Your task to perform on an android device: open app "Cash App" (install if not already installed) Image 0: 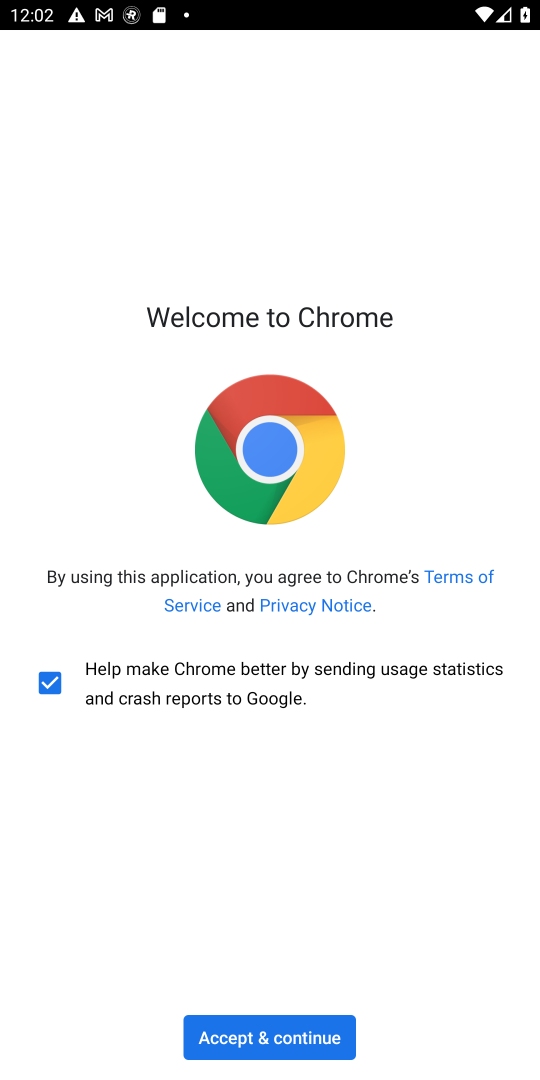
Step 0: press home button
Your task to perform on an android device: open app "Cash App" (install if not already installed) Image 1: 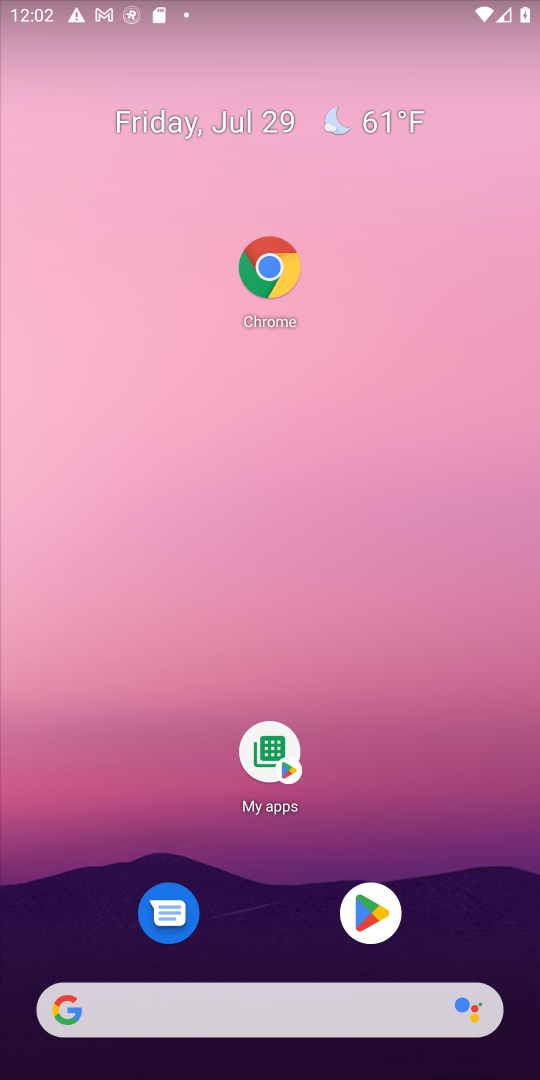
Step 1: click (388, 904)
Your task to perform on an android device: open app "Cash App" (install if not already installed) Image 2: 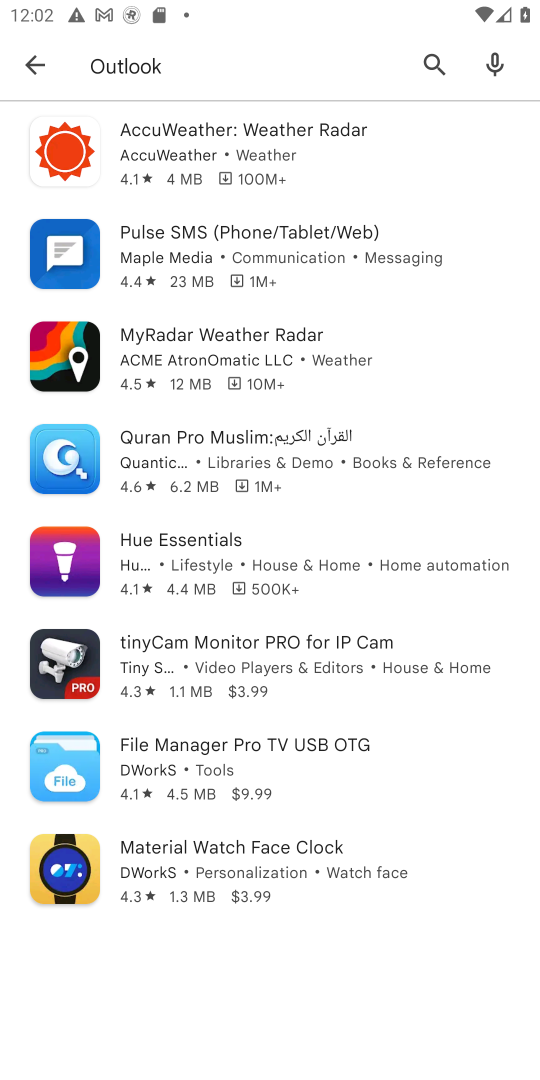
Step 2: click (427, 62)
Your task to perform on an android device: open app "Cash App" (install if not already installed) Image 3: 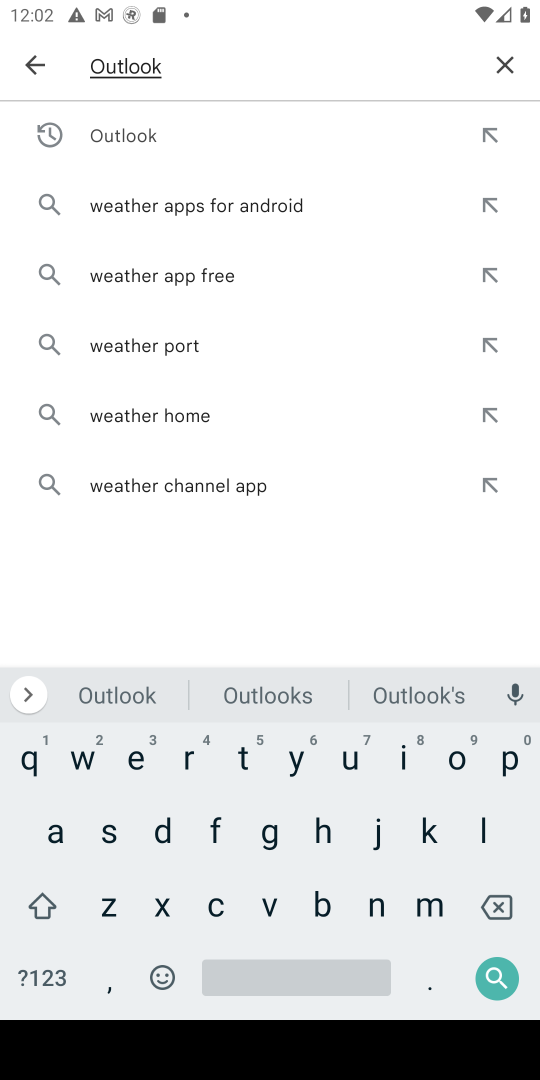
Step 3: click (502, 63)
Your task to perform on an android device: open app "Cash App" (install if not already installed) Image 4: 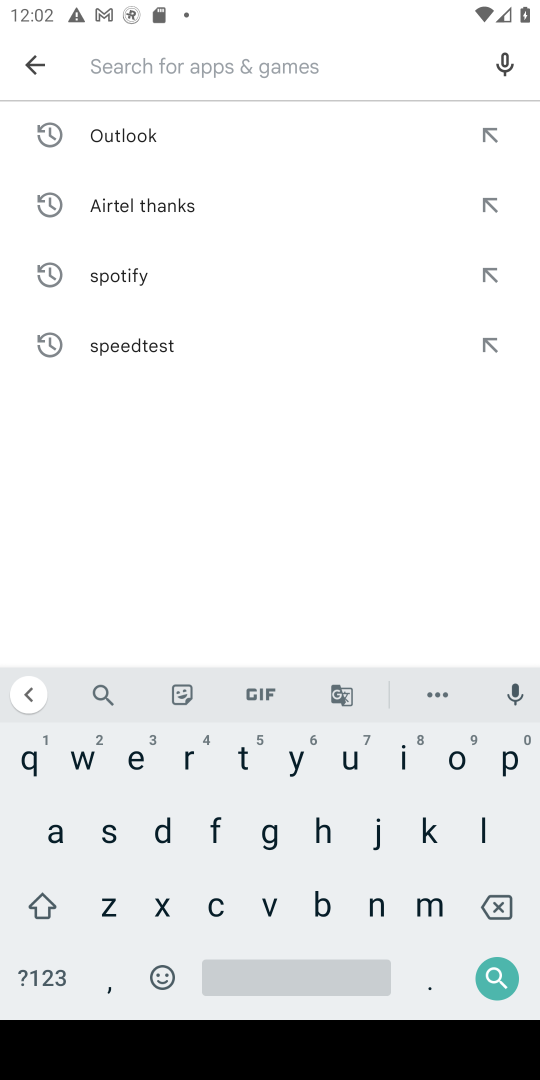
Step 4: click (222, 896)
Your task to perform on an android device: open app "Cash App" (install if not already installed) Image 5: 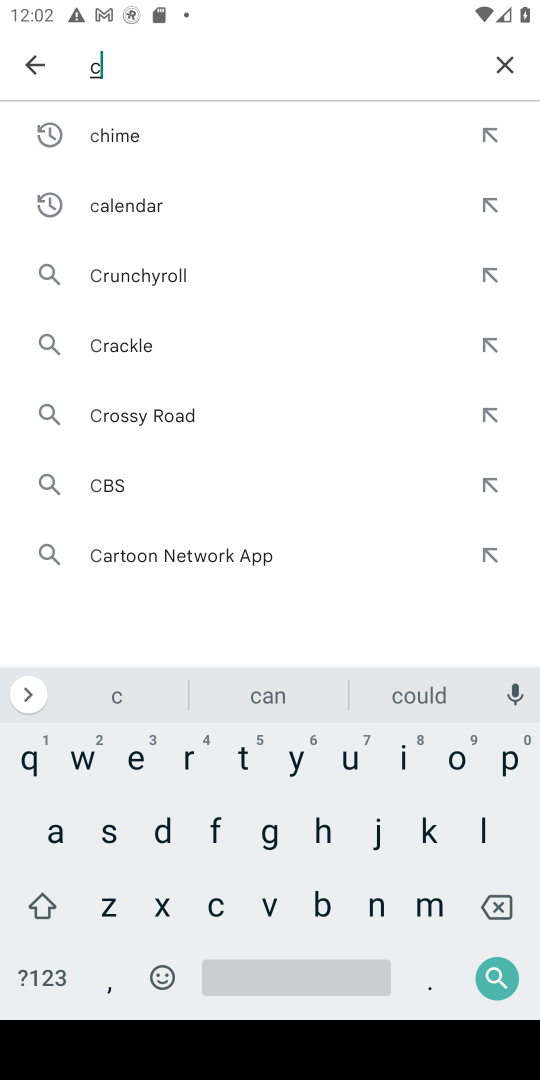
Step 5: click (38, 833)
Your task to perform on an android device: open app "Cash App" (install if not already installed) Image 6: 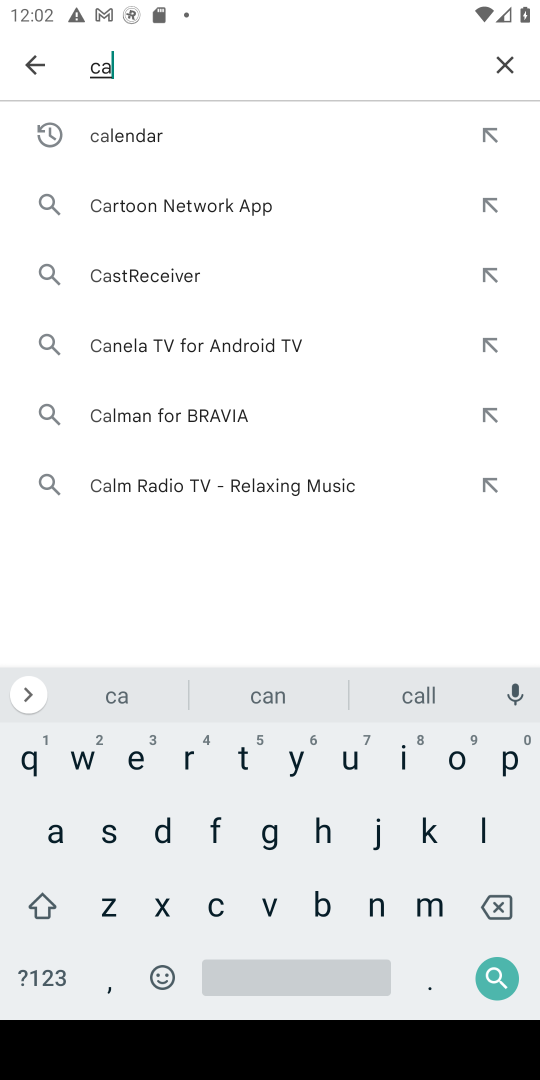
Step 6: click (100, 839)
Your task to perform on an android device: open app "Cash App" (install if not already installed) Image 7: 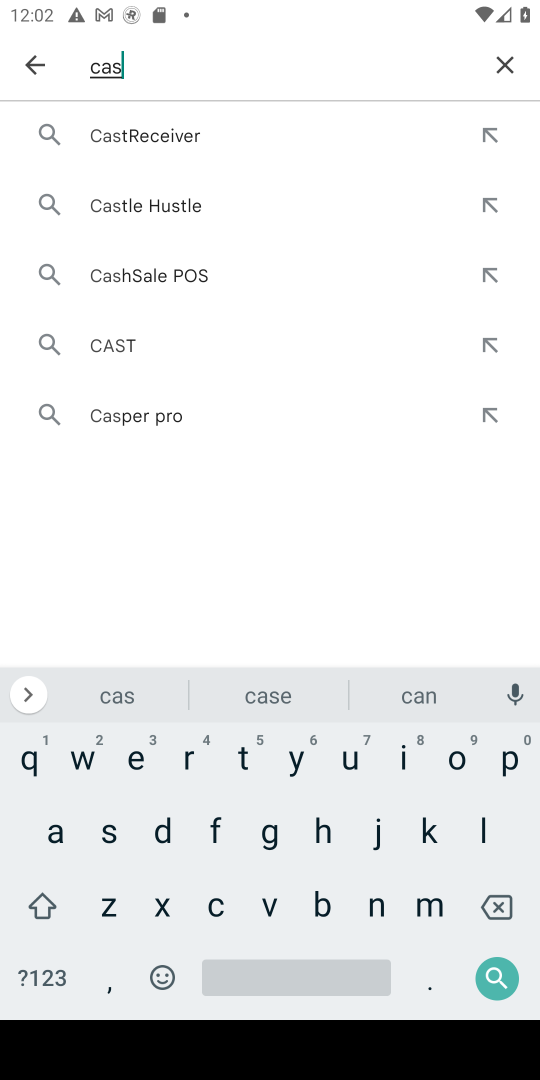
Step 7: click (323, 822)
Your task to perform on an android device: open app "Cash App" (install if not already installed) Image 8: 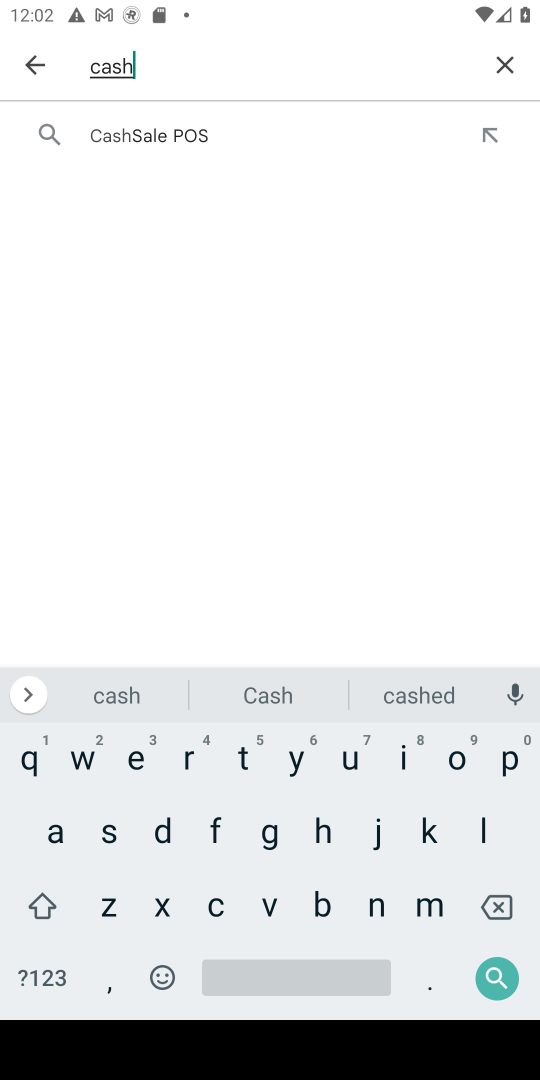
Step 8: click (485, 962)
Your task to perform on an android device: open app "Cash App" (install if not already installed) Image 9: 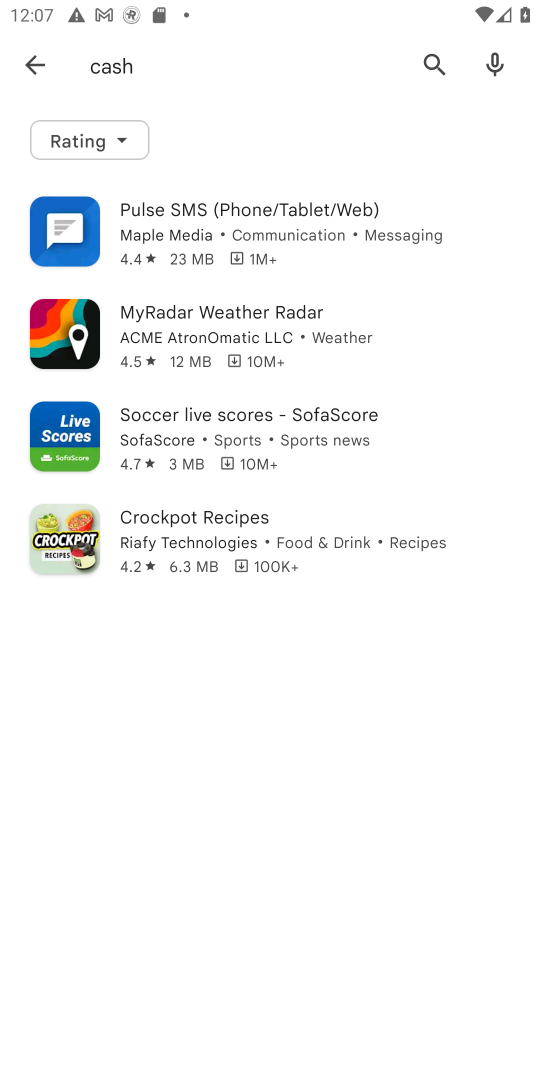
Step 9: task complete